Your task to perform on an android device: install app "Gmail" Image 0: 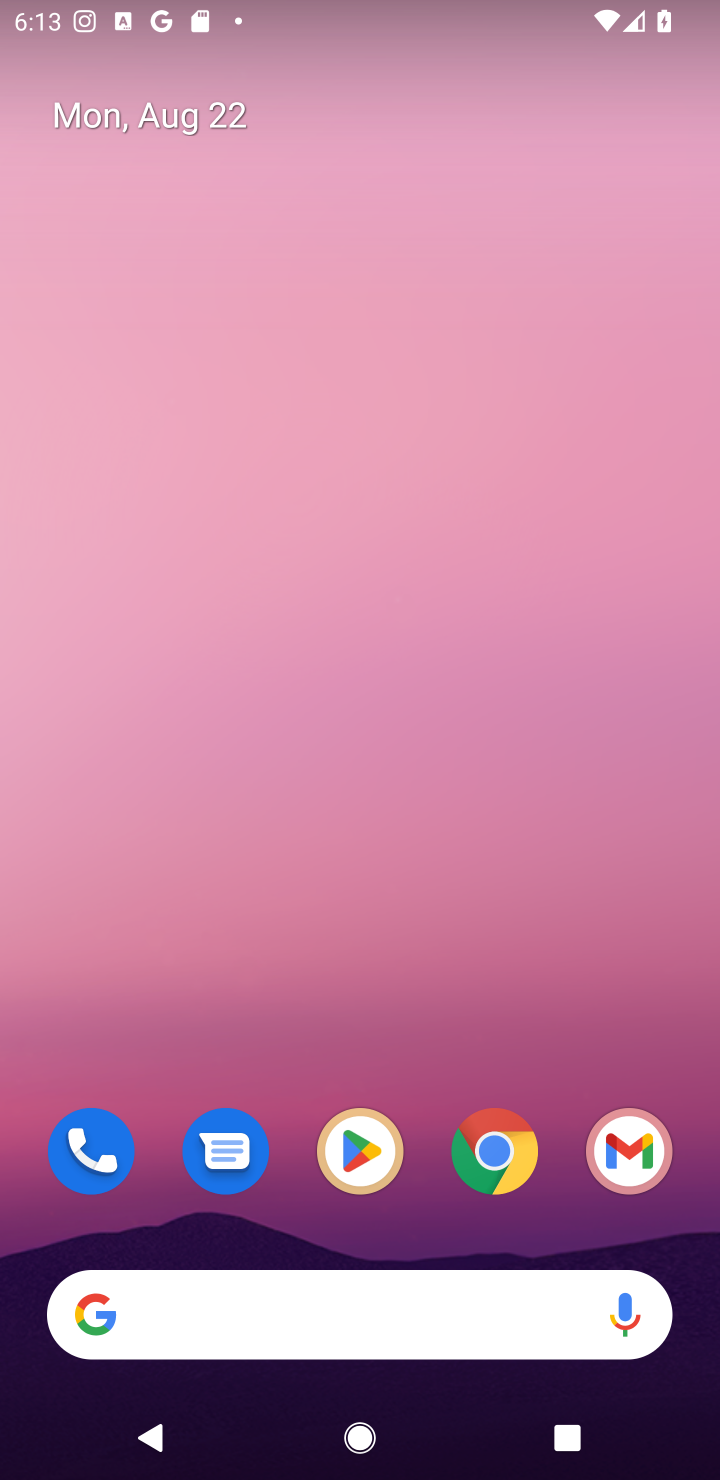
Step 0: click (356, 1143)
Your task to perform on an android device: install app "Gmail" Image 1: 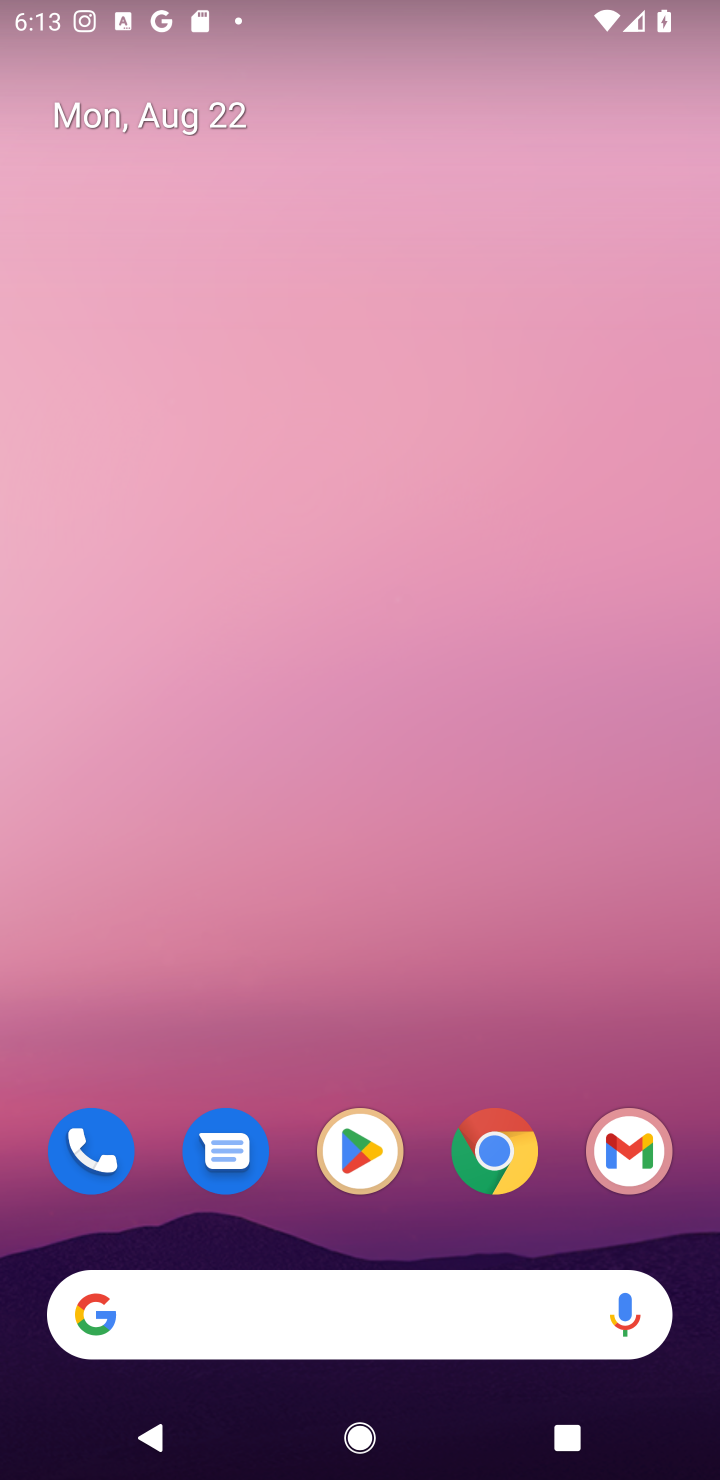
Step 1: click (354, 1148)
Your task to perform on an android device: install app "Gmail" Image 2: 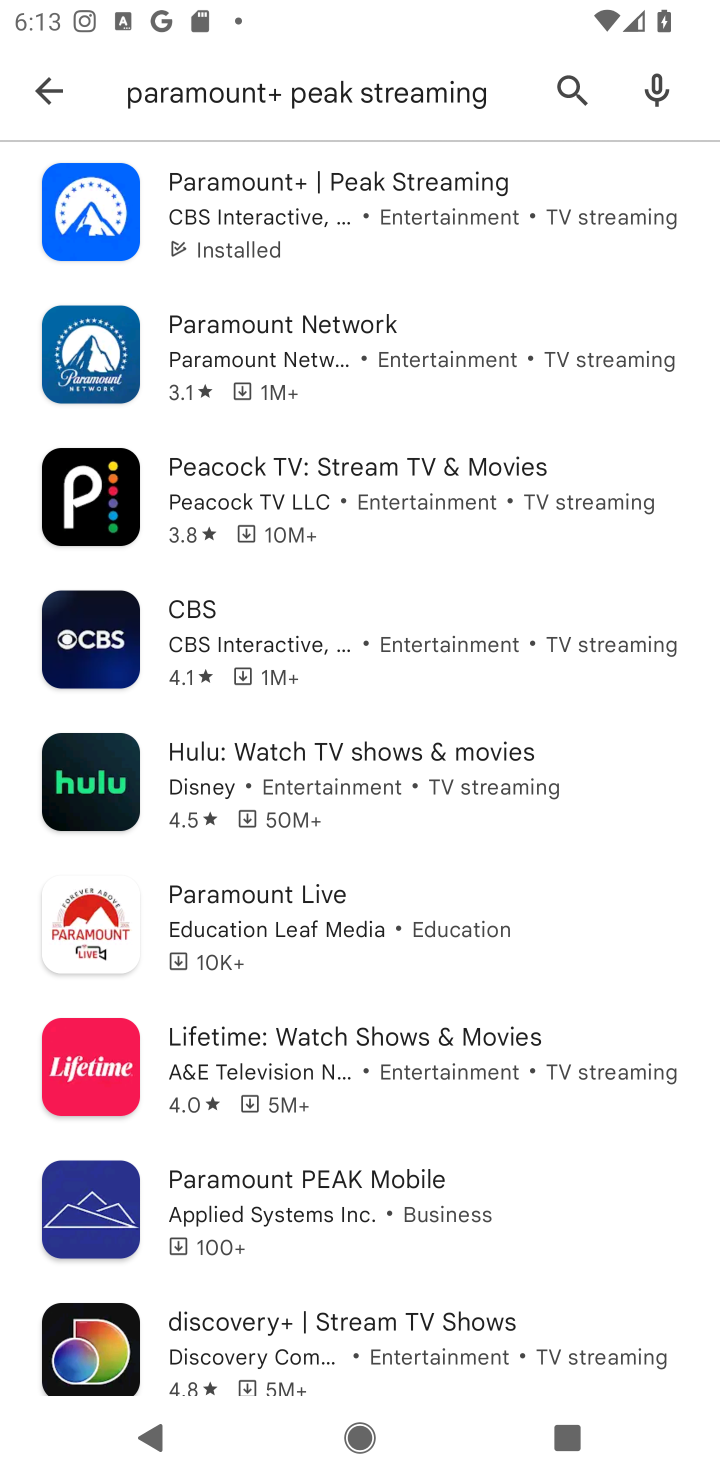
Step 2: click (561, 77)
Your task to perform on an android device: install app "Gmail" Image 3: 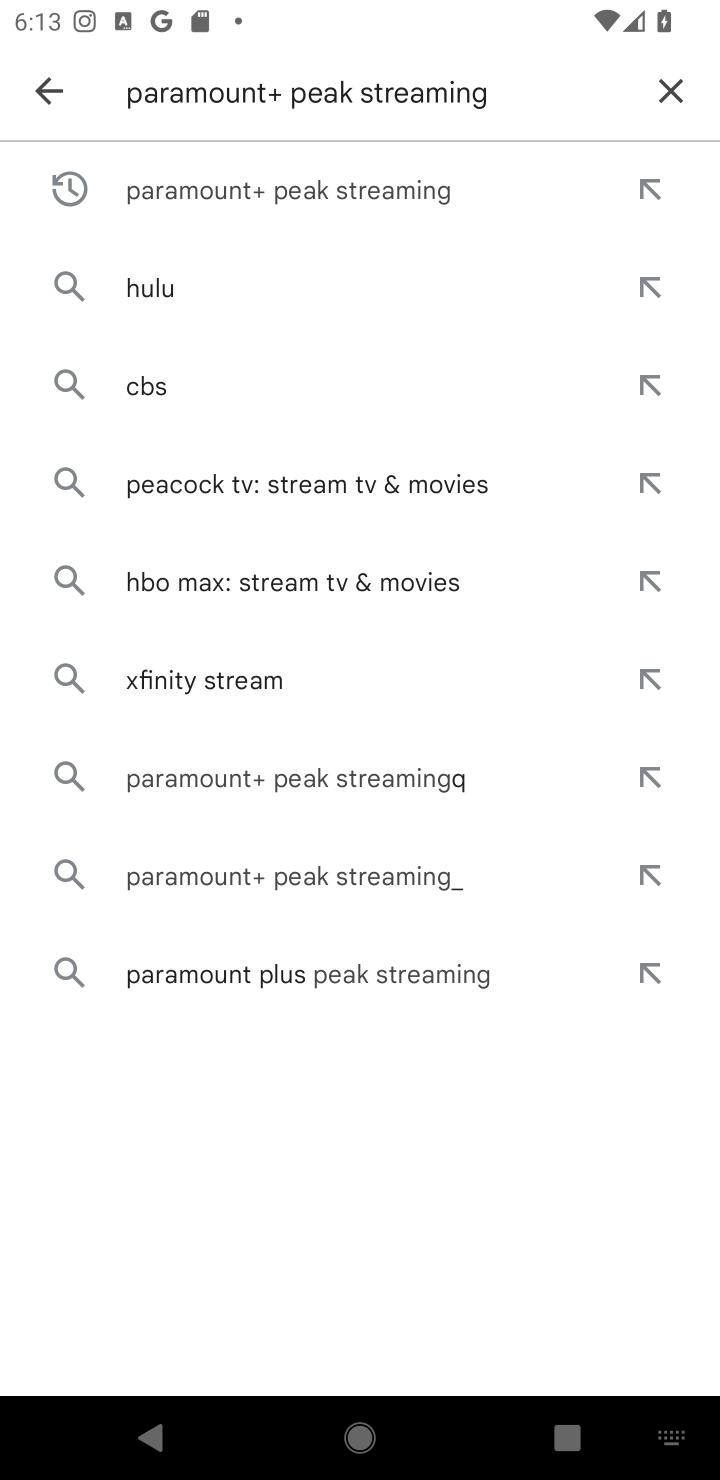
Step 3: click (669, 84)
Your task to perform on an android device: install app "Gmail" Image 4: 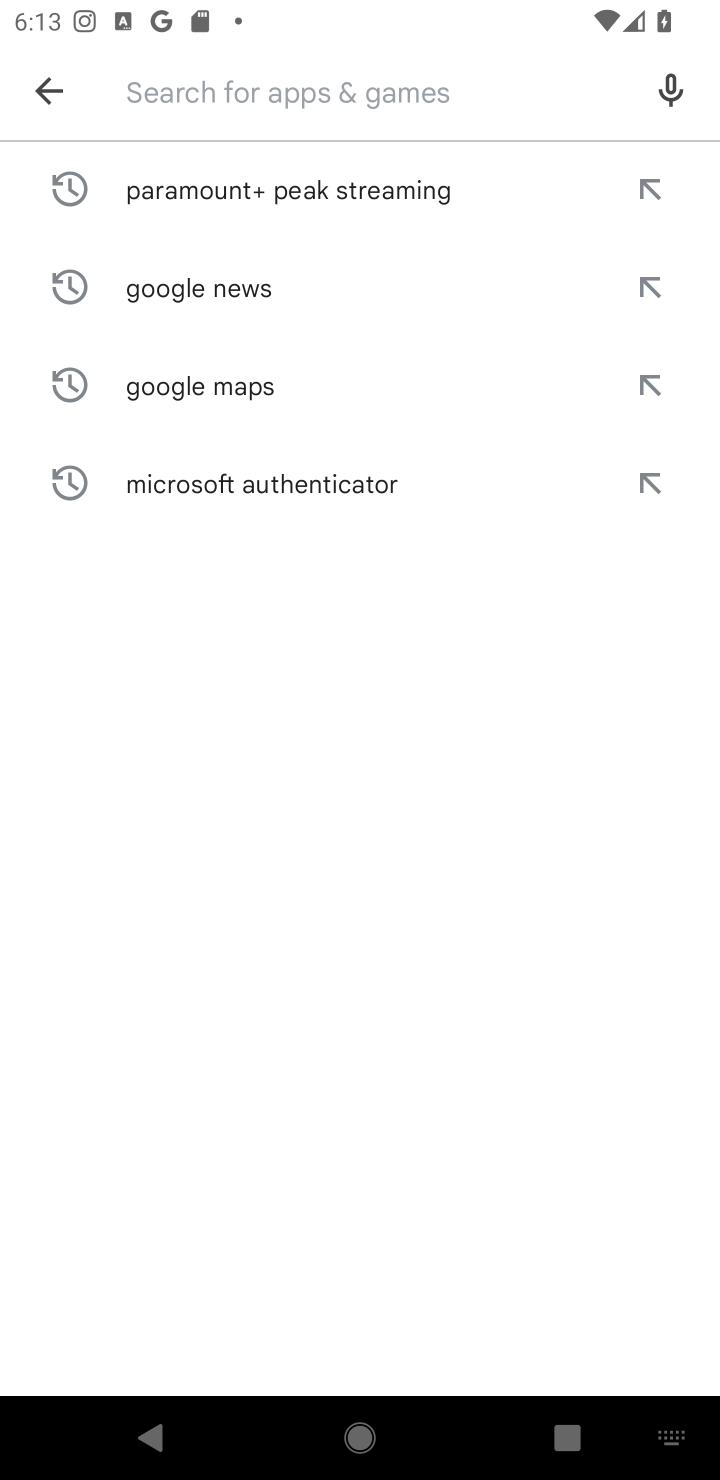
Step 4: type "Gmail"
Your task to perform on an android device: install app "Gmail" Image 5: 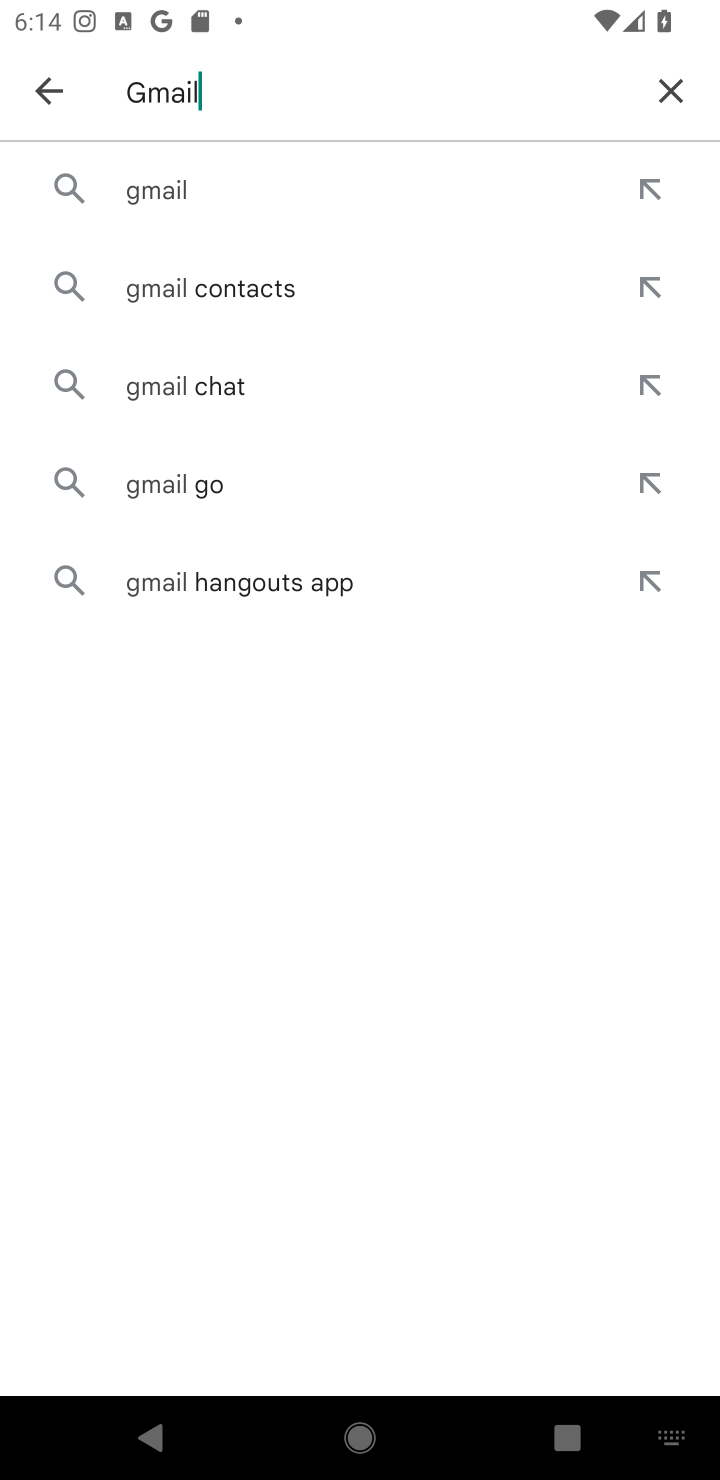
Step 5: click (150, 192)
Your task to perform on an android device: install app "Gmail" Image 6: 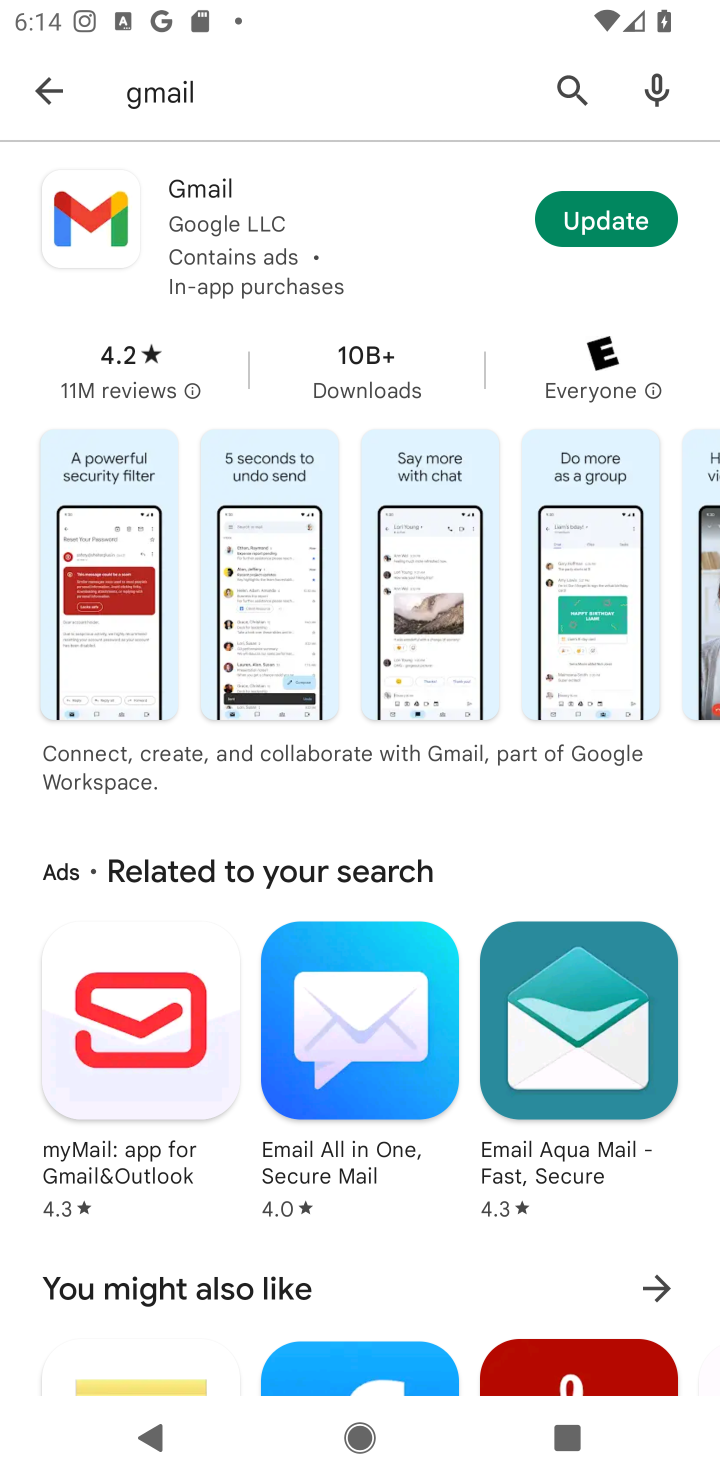
Step 6: task complete